Your task to perform on an android device: Open Android settings Image 0: 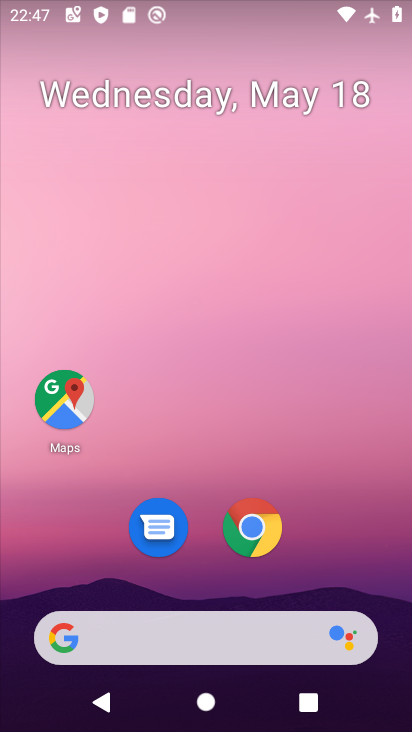
Step 0: drag from (346, 571) to (206, 65)
Your task to perform on an android device: Open Android settings Image 1: 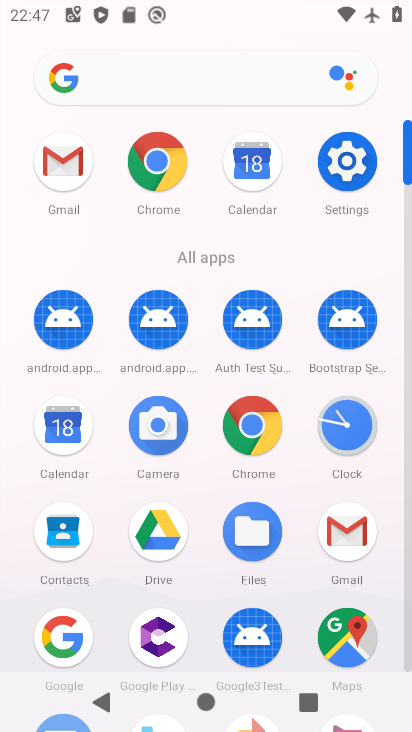
Step 1: click (357, 185)
Your task to perform on an android device: Open Android settings Image 2: 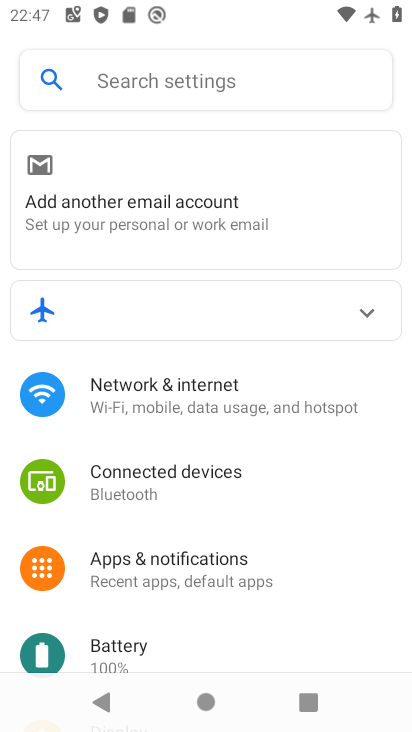
Step 2: task complete